Your task to perform on an android device: toggle priority inbox in the gmail app Image 0: 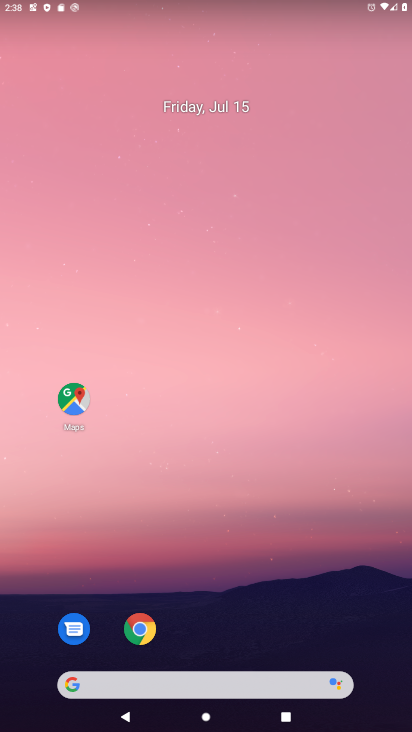
Step 0: drag from (277, 600) to (267, 150)
Your task to perform on an android device: toggle priority inbox in the gmail app Image 1: 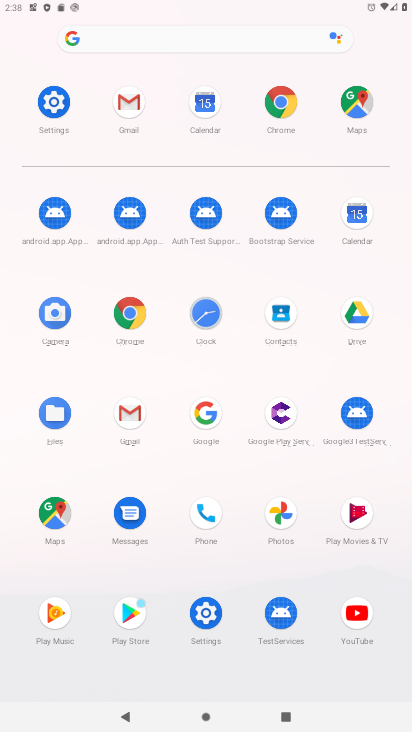
Step 1: click (132, 102)
Your task to perform on an android device: toggle priority inbox in the gmail app Image 2: 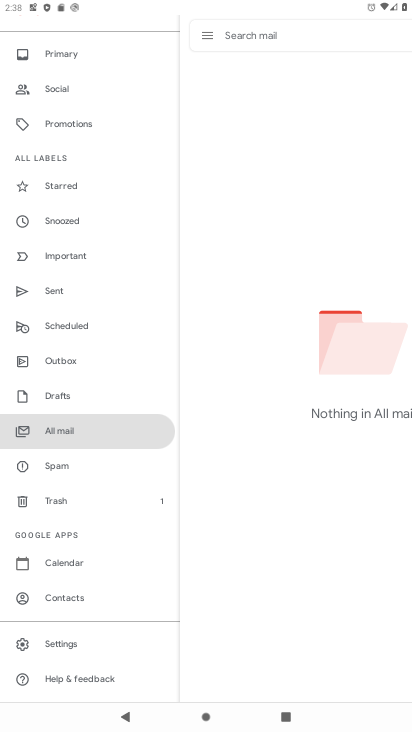
Step 2: click (66, 642)
Your task to perform on an android device: toggle priority inbox in the gmail app Image 3: 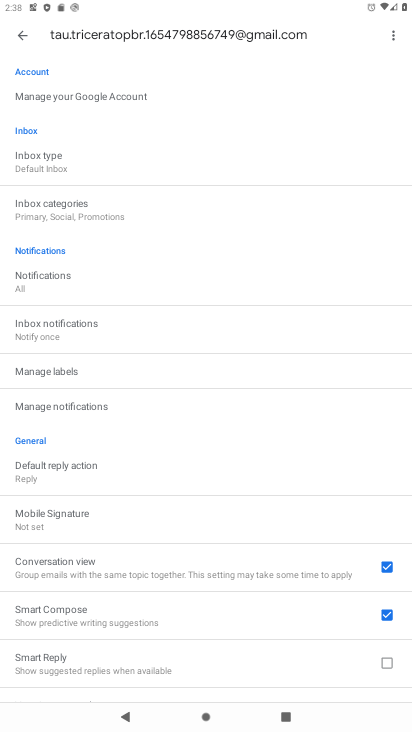
Step 3: click (61, 158)
Your task to perform on an android device: toggle priority inbox in the gmail app Image 4: 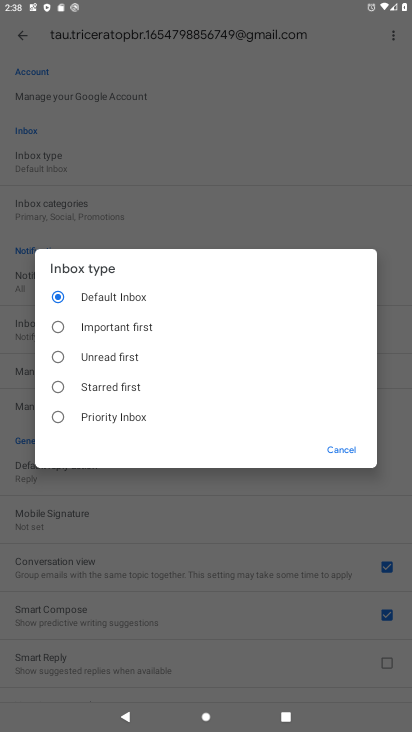
Step 4: click (105, 412)
Your task to perform on an android device: toggle priority inbox in the gmail app Image 5: 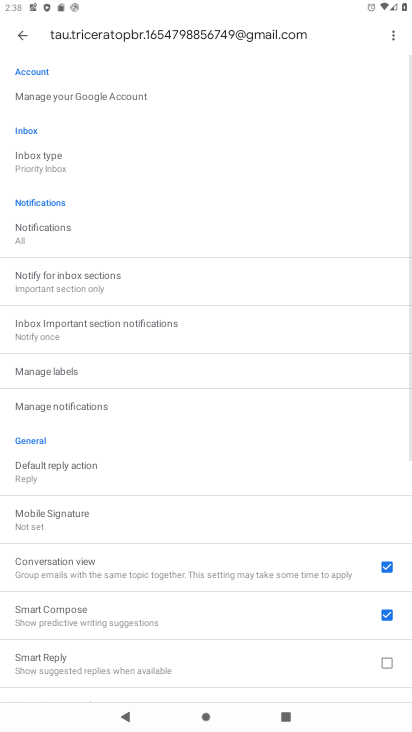
Step 5: task complete